Your task to perform on an android device: toggle priority inbox in the gmail app Image 0: 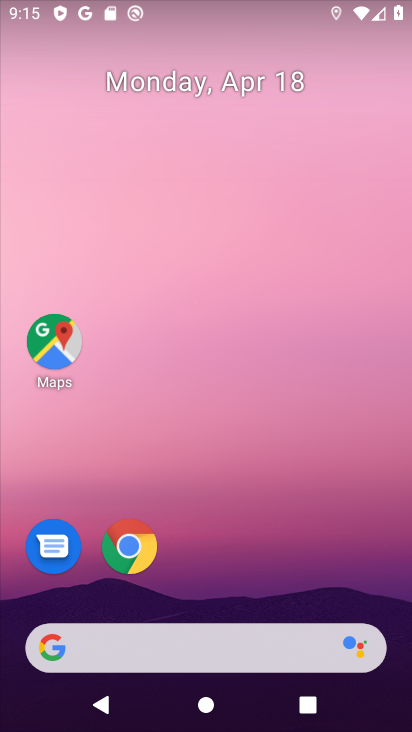
Step 0: drag from (300, 584) to (350, 58)
Your task to perform on an android device: toggle priority inbox in the gmail app Image 1: 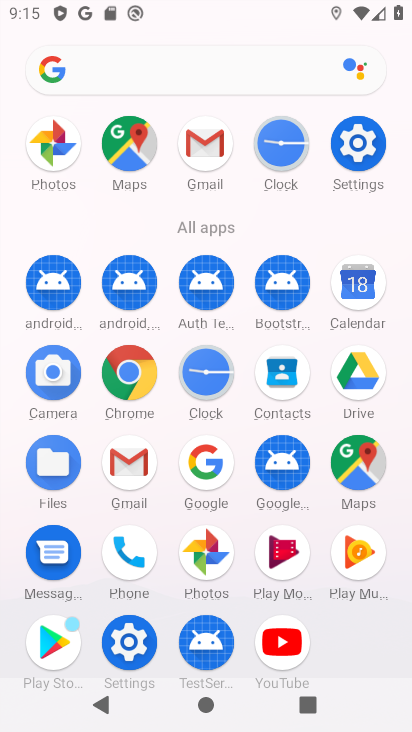
Step 1: click (130, 480)
Your task to perform on an android device: toggle priority inbox in the gmail app Image 2: 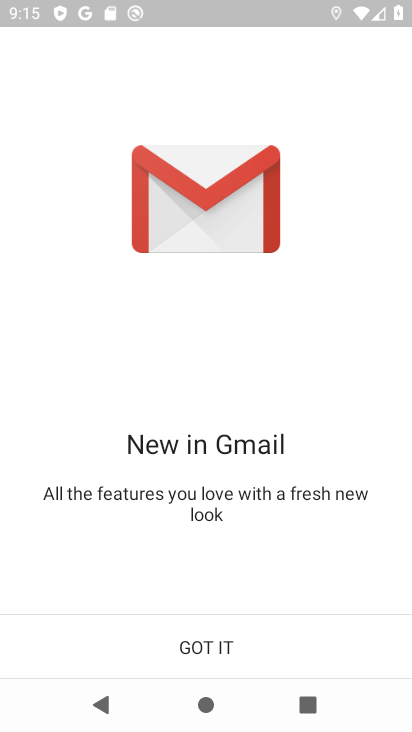
Step 2: click (206, 651)
Your task to perform on an android device: toggle priority inbox in the gmail app Image 3: 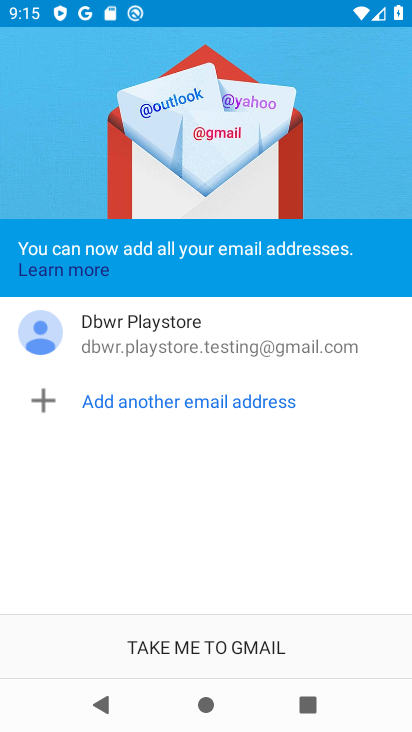
Step 3: click (202, 634)
Your task to perform on an android device: toggle priority inbox in the gmail app Image 4: 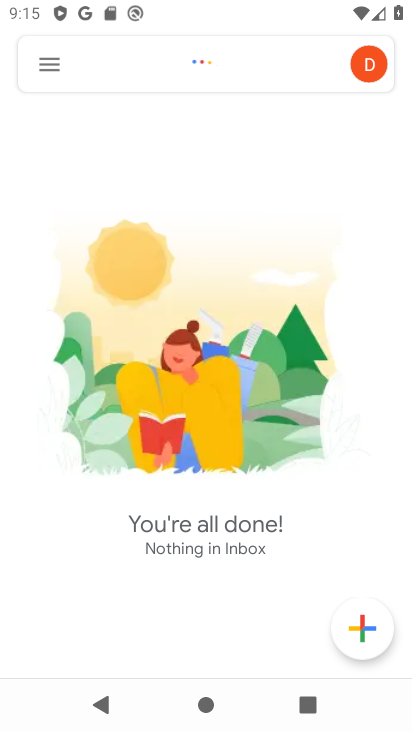
Step 4: click (43, 66)
Your task to perform on an android device: toggle priority inbox in the gmail app Image 5: 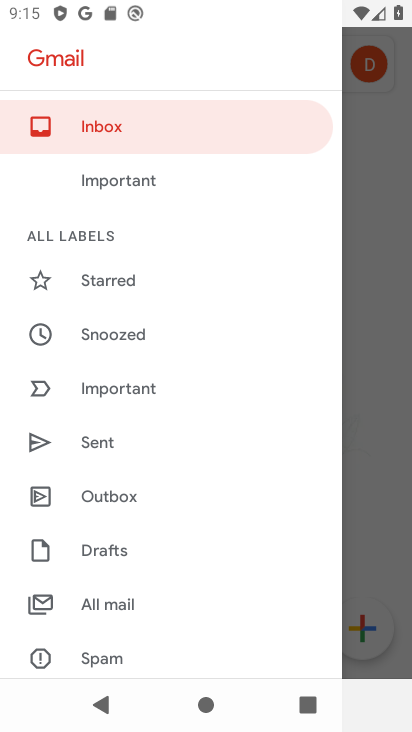
Step 5: drag from (108, 579) to (162, 196)
Your task to perform on an android device: toggle priority inbox in the gmail app Image 6: 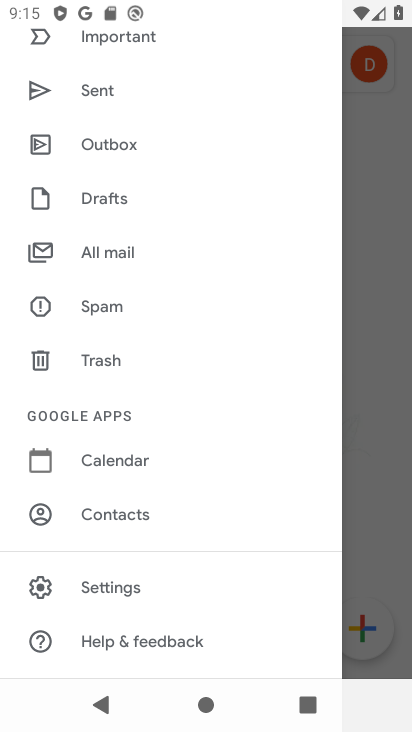
Step 6: click (109, 580)
Your task to perform on an android device: toggle priority inbox in the gmail app Image 7: 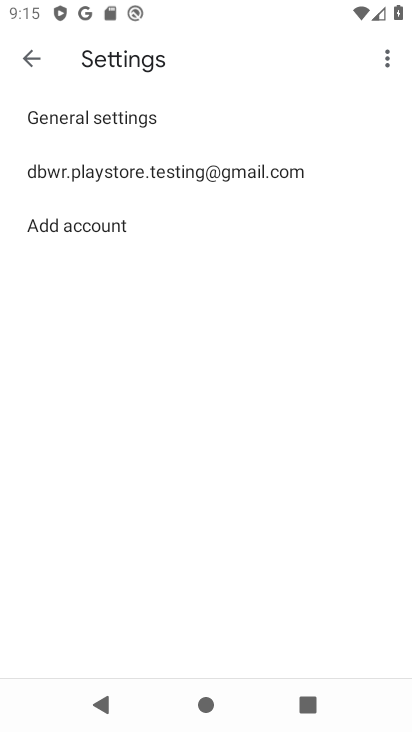
Step 7: click (213, 186)
Your task to perform on an android device: toggle priority inbox in the gmail app Image 8: 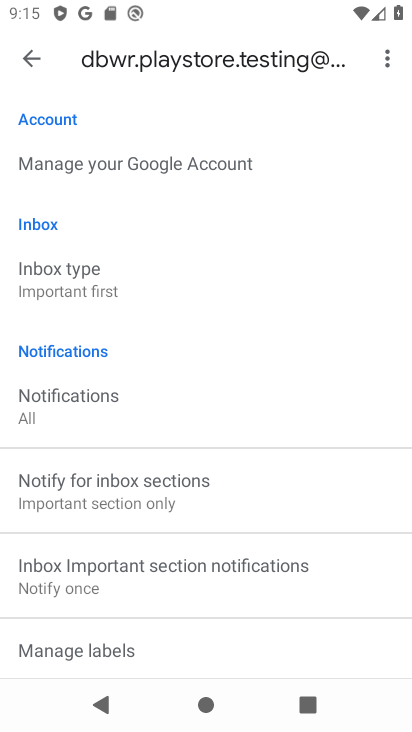
Step 8: drag from (189, 584) to (268, 268)
Your task to perform on an android device: toggle priority inbox in the gmail app Image 9: 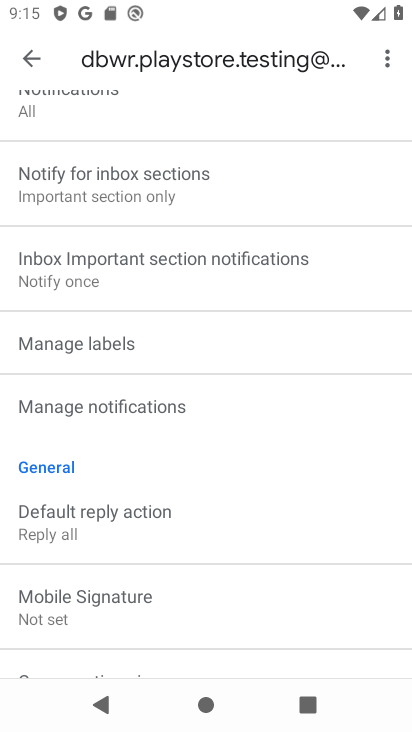
Step 9: drag from (147, 476) to (188, 271)
Your task to perform on an android device: toggle priority inbox in the gmail app Image 10: 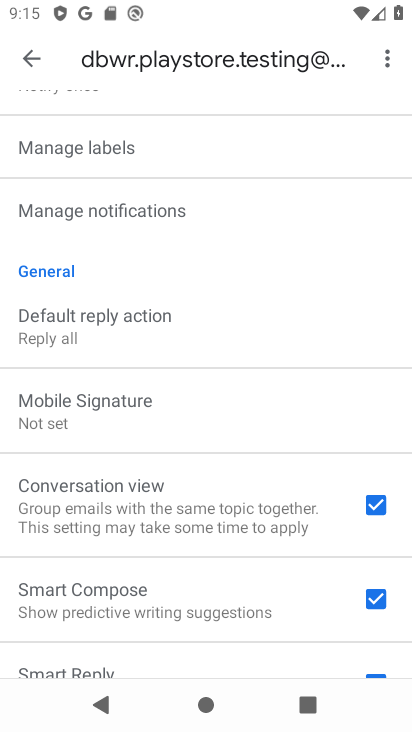
Step 10: drag from (112, 607) to (180, 364)
Your task to perform on an android device: toggle priority inbox in the gmail app Image 11: 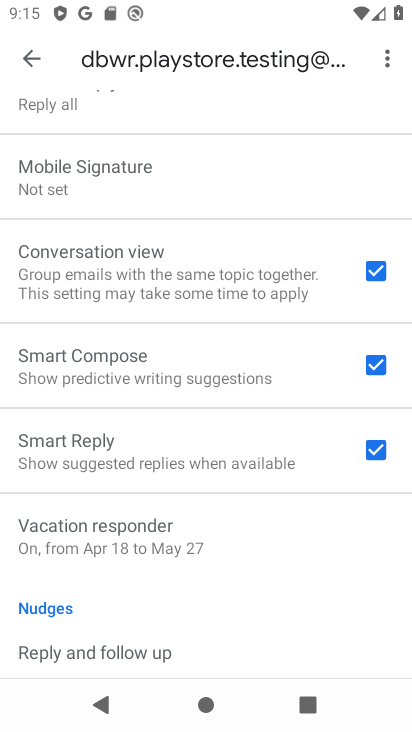
Step 11: drag from (191, 398) to (130, 669)
Your task to perform on an android device: toggle priority inbox in the gmail app Image 12: 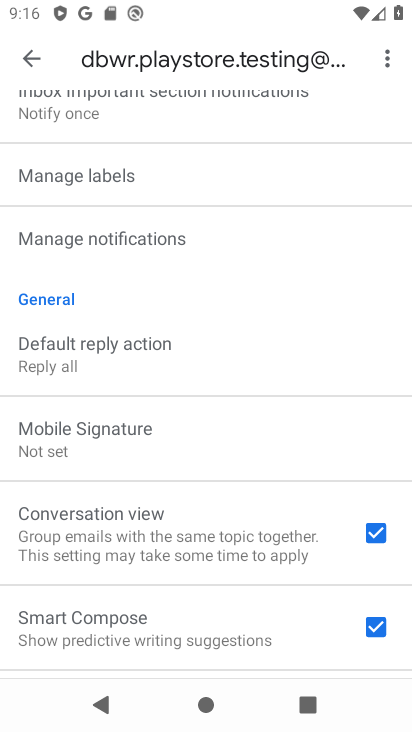
Step 12: drag from (150, 179) to (161, 499)
Your task to perform on an android device: toggle priority inbox in the gmail app Image 13: 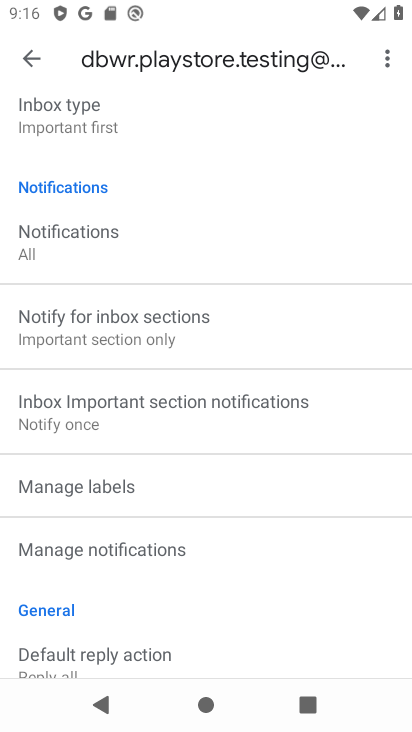
Step 13: click (86, 132)
Your task to perform on an android device: toggle priority inbox in the gmail app Image 14: 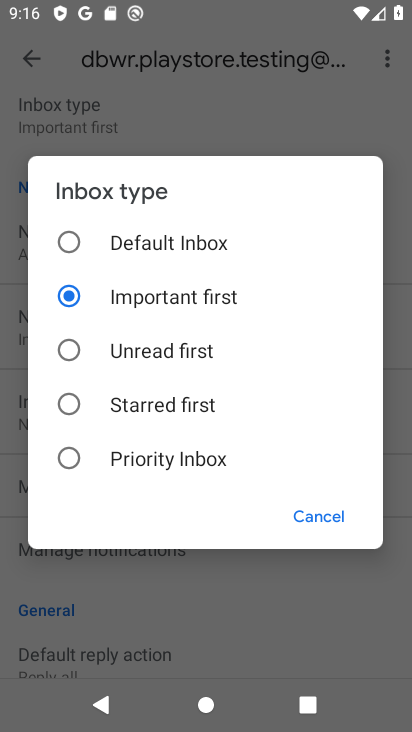
Step 14: click (128, 458)
Your task to perform on an android device: toggle priority inbox in the gmail app Image 15: 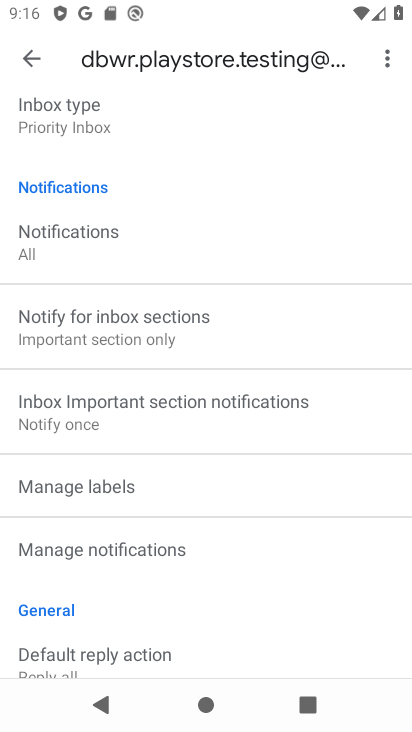
Step 15: task complete